Your task to perform on an android device: Open Youtube and go to "Your channel" Image 0: 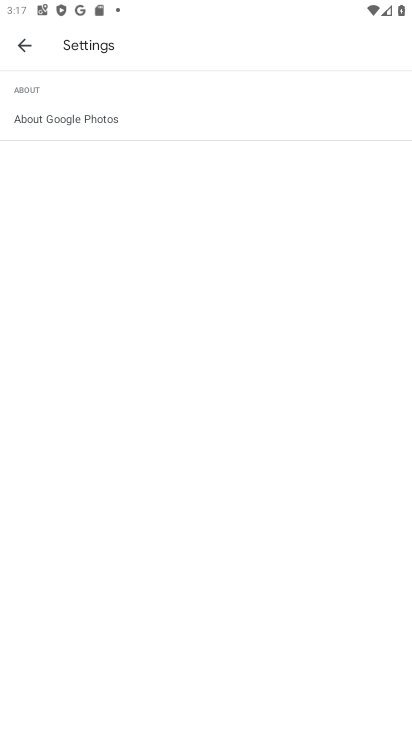
Step 0: press home button
Your task to perform on an android device: Open Youtube and go to "Your channel" Image 1: 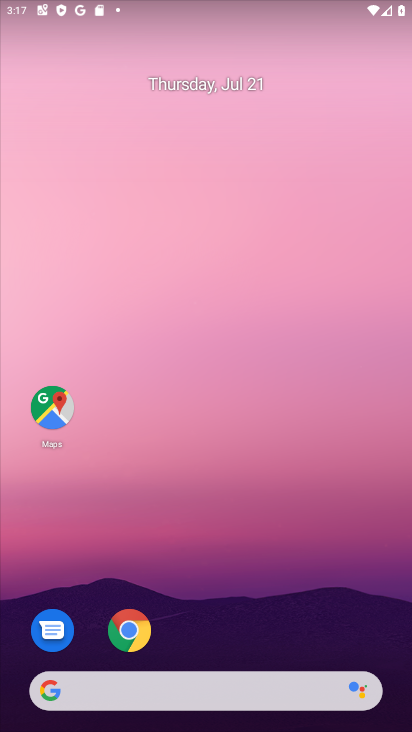
Step 1: drag from (275, 515) to (185, 2)
Your task to perform on an android device: Open Youtube and go to "Your channel" Image 2: 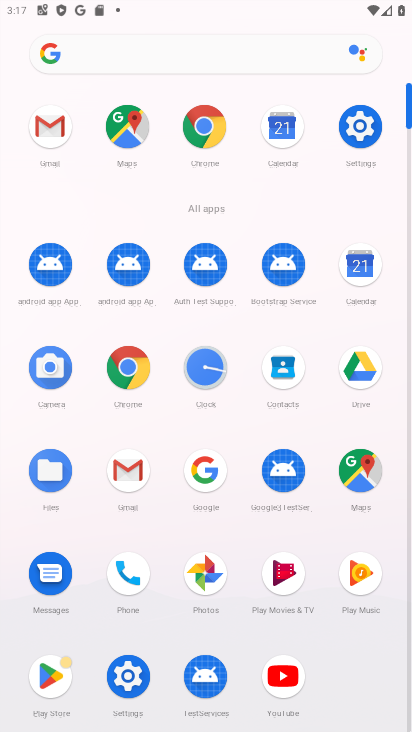
Step 2: click (298, 680)
Your task to perform on an android device: Open Youtube and go to "Your channel" Image 3: 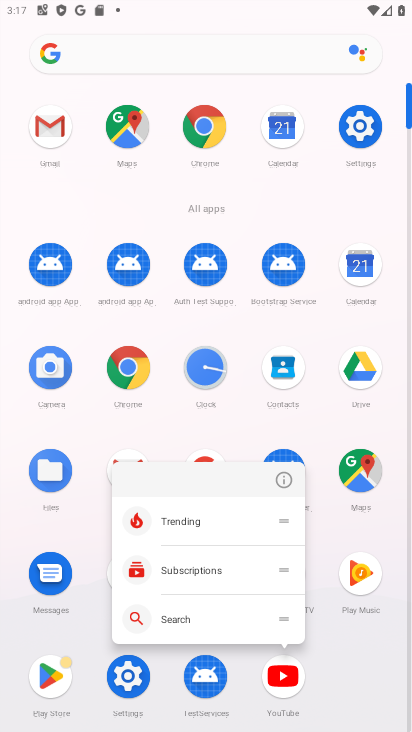
Step 3: click (273, 672)
Your task to perform on an android device: Open Youtube and go to "Your channel" Image 4: 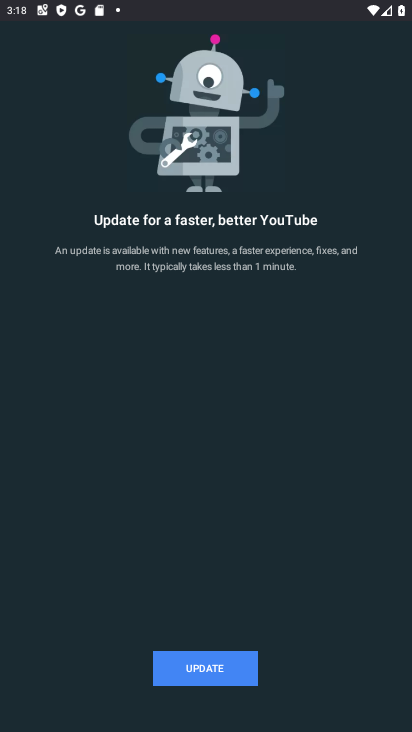
Step 4: click (204, 667)
Your task to perform on an android device: Open Youtube and go to "Your channel" Image 5: 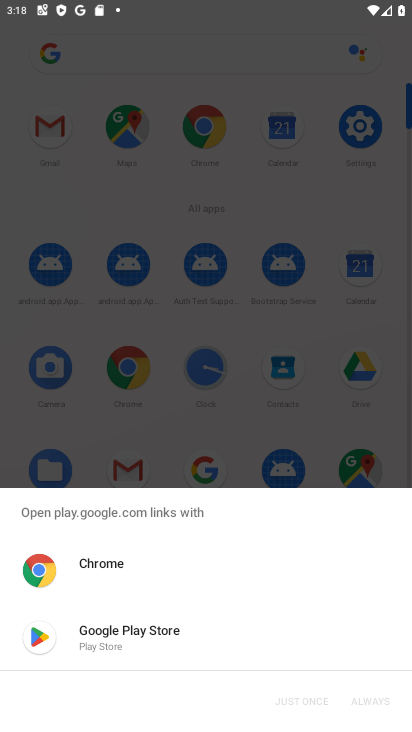
Step 5: click (135, 625)
Your task to perform on an android device: Open Youtube and go to "Your channel" Image 6: 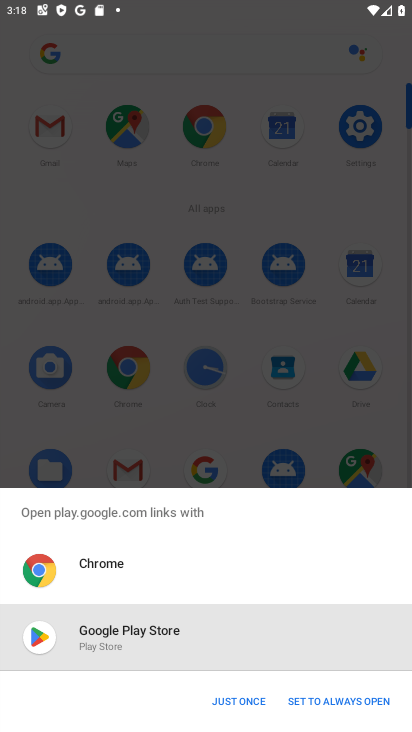
Step 6: click (241, 695)
Your task to perform on an android device: Open Youtube and go to "Your channel" Image 7: 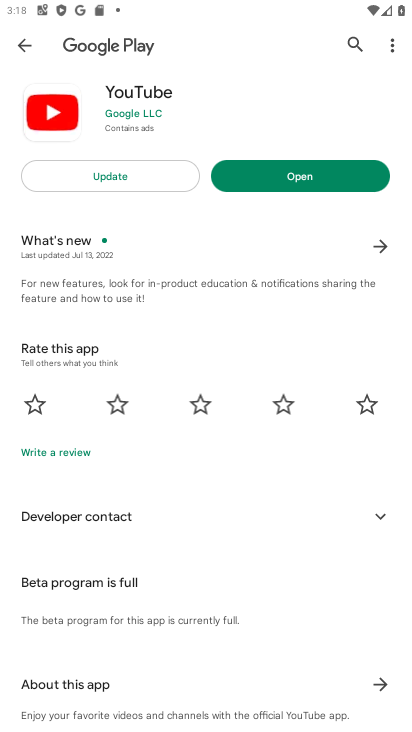
Step 7: click (112, 180)
Your task to perform on an android device: Open Youtube and go to "Your channel" Image 8: 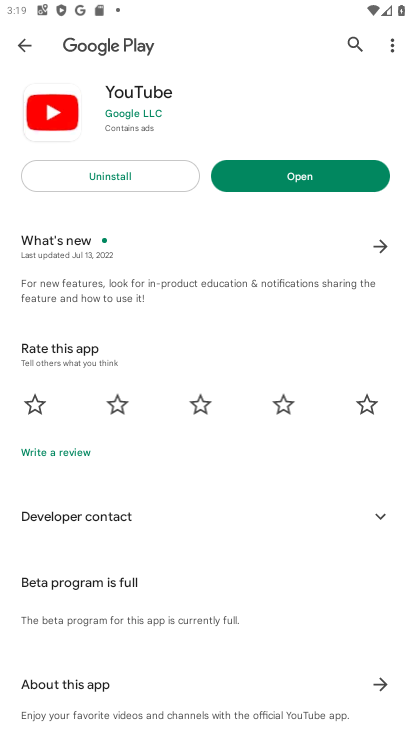
Step 8: click (305, 174)
Your task to perform on an android device: Open Youtube and go to "Your channel" Image 9: 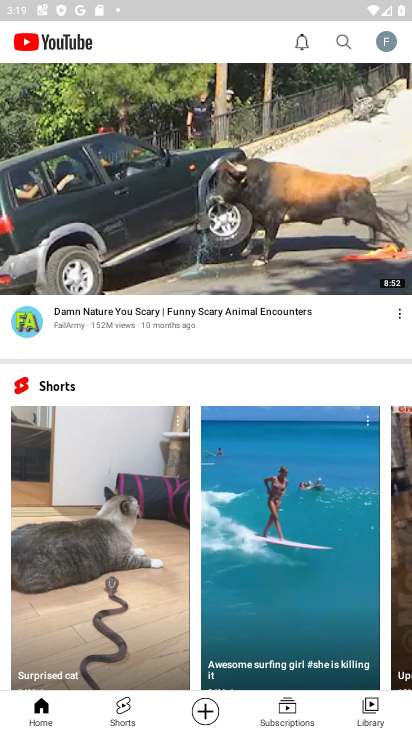
Step 9: click (387, 53)
Your task to perform on an android device: Open Youtube and go to "Your channel" Image 10: 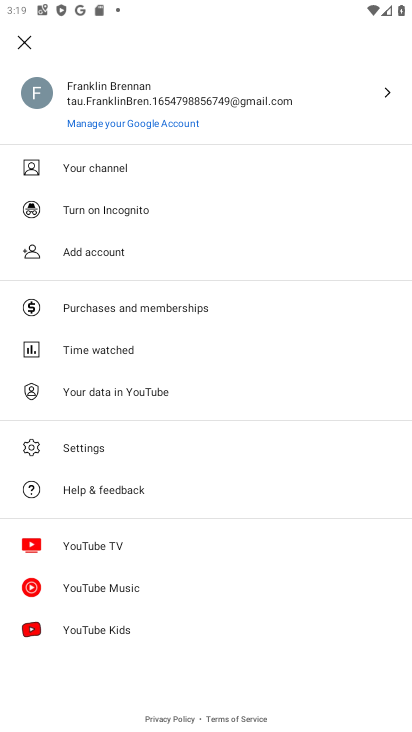
Step 10: click (94, 209)
Your task to perform on an android device: Open Youtube and go to "Your channel" Image 11: 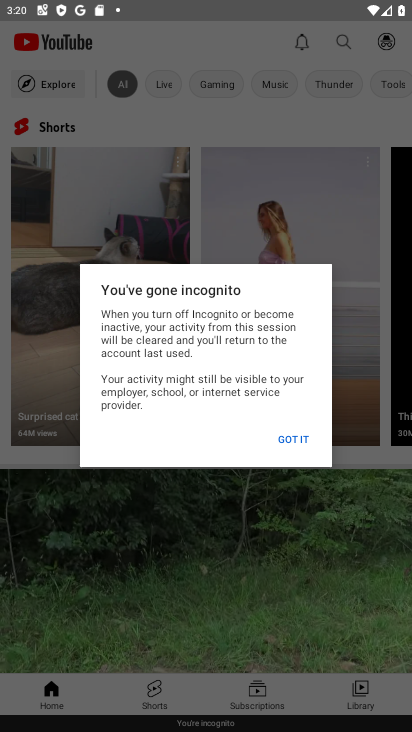
Step 11: task complete